Your task to perform on an android device: Open Chrome and go to settings Image 0: 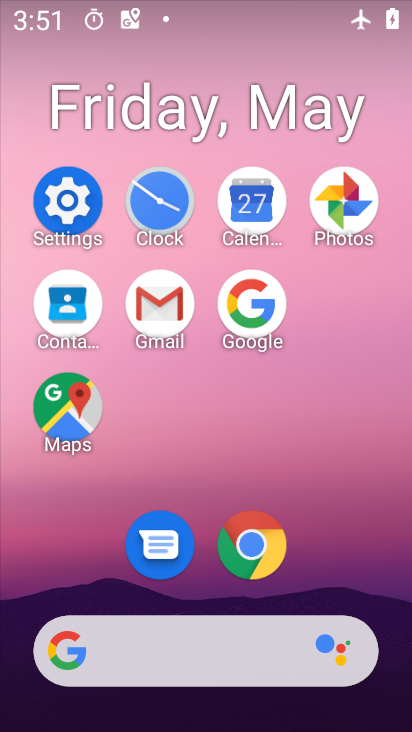
Step 0: click (260, 551)
Your task to perform on an android device: Open Chrome and go to settings Image 1: 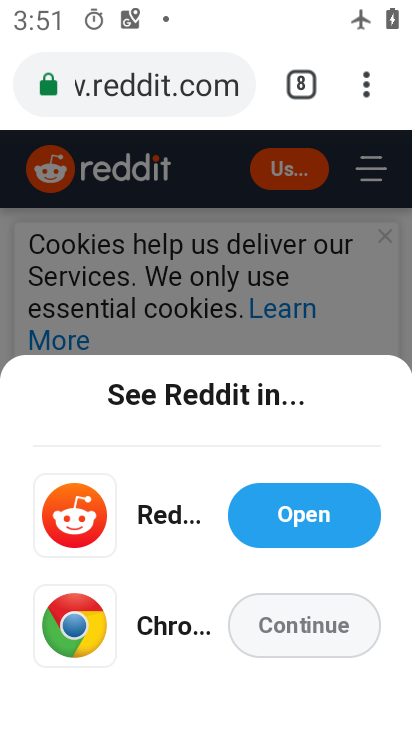
Step 1: click (373, 76)
Your task to perform on an android device: Open Chrome and go to settings Image 2: 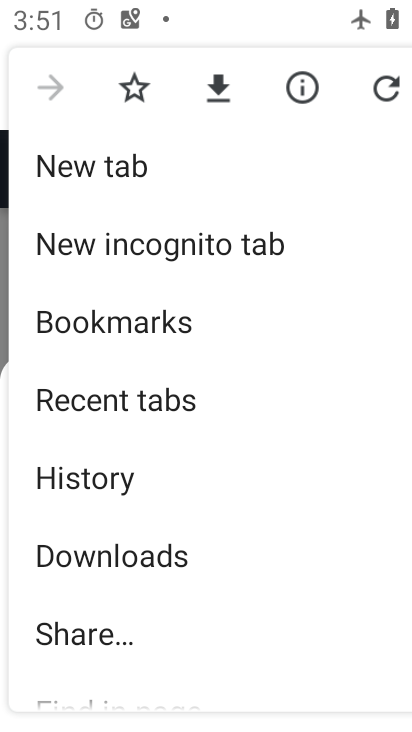
Step 2: drag from (141, 565) to (144, 174)
Your task to perform on an android device: Open Chrome and go to settings Image 3: 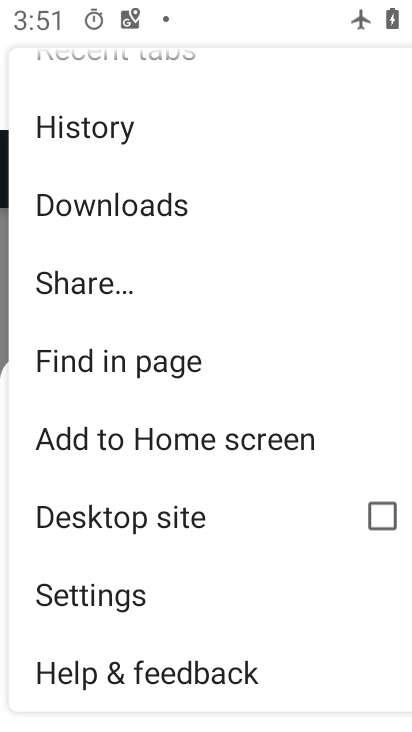
Step 3: click (135, 595)
Your task to perform on an android device: Open Chrome and go to settings Image 4: 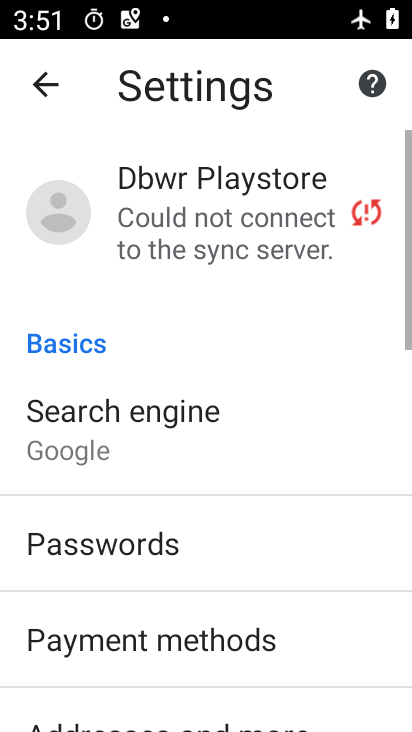
Step 4: task complete